Your task to perform on an android device: Open Wikipedia Image 0: 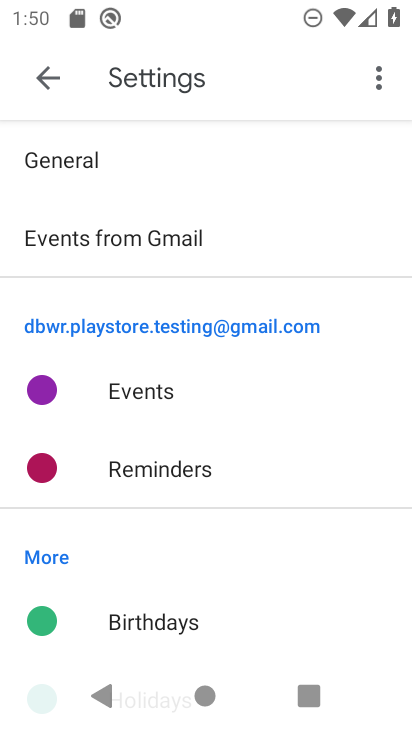
Step 0: press home button
Your task to perform on an android device: Open Wikipedia Image 1: 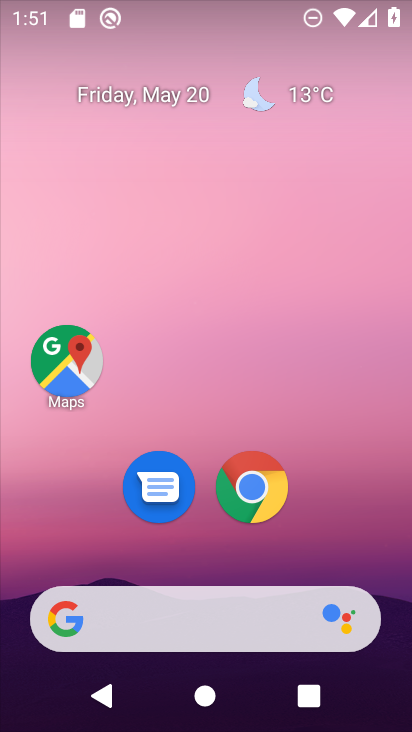
Step 1: click (258, 481)
Your task to perform on an android device: Open Wikipedia Image 2: 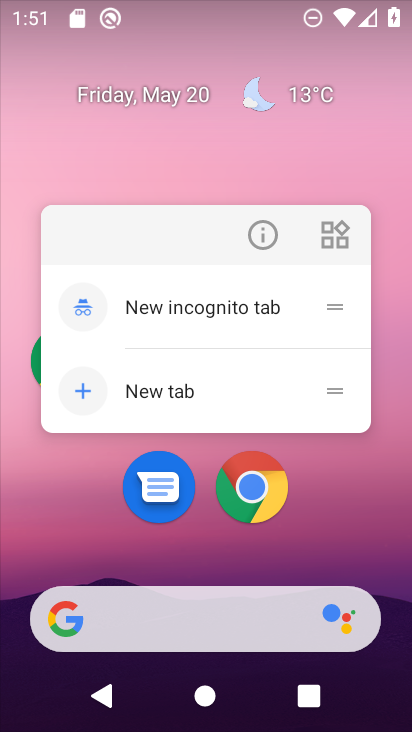
Step 2: click (250, 490)
Your task to perform on an android device: Open Wikipedia Image 3: 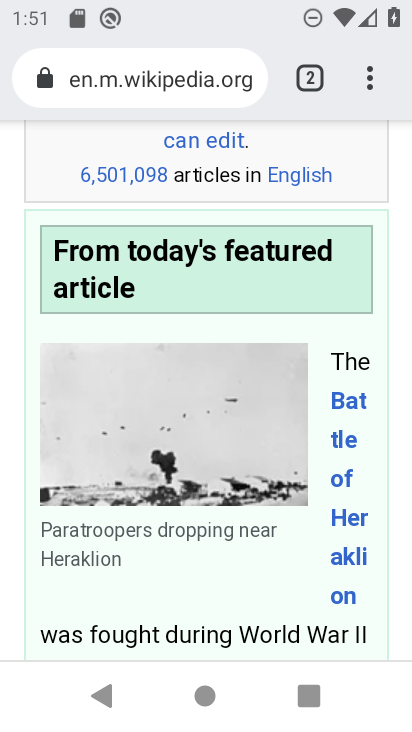
Step 3: task complete